Your task to perform on an android device: allow cookies in the chrome app Image 0: 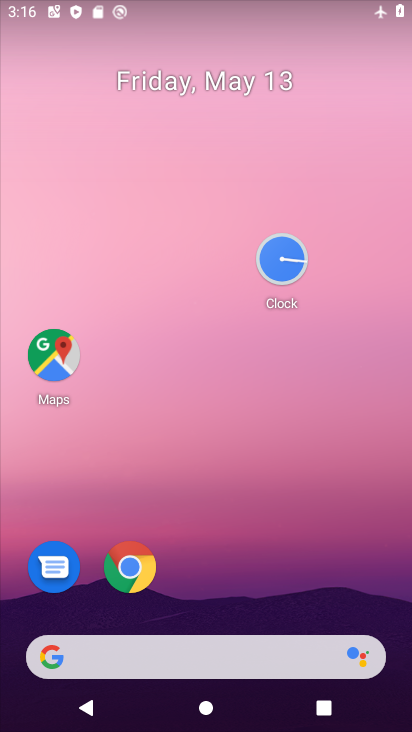
Step 0: click (147, 601)
Your task to perform on an android device: allow cookies in the chrome app Image 1: 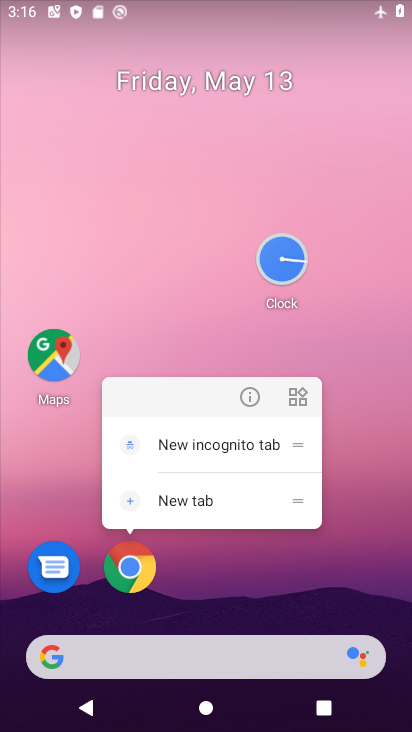
Step 1: click (147, 601)
Your task to perform on an android device: allow cookies in the chrome app Image 2: 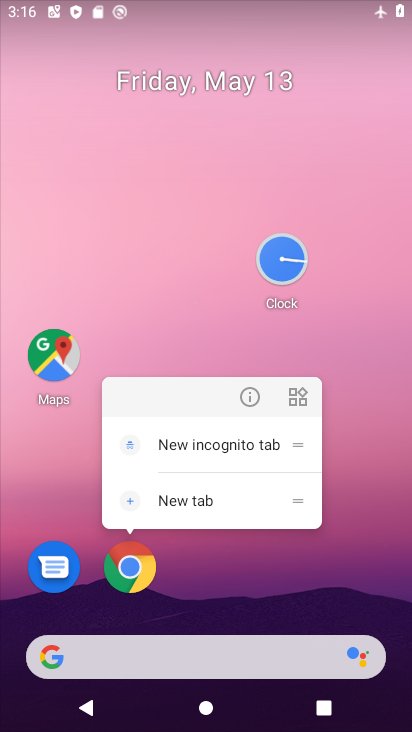
Step 2: click (147, 601)
Your task to perform on an android device: allow cookies in the chrome app Image 3: 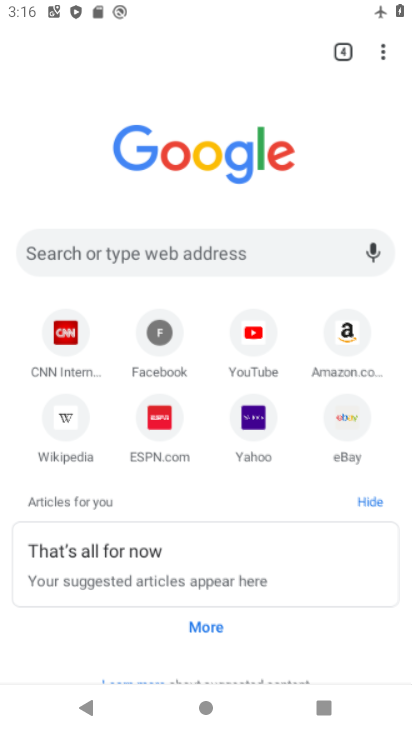
Step 3: click (385, 51)
Your task to perform on an android device: allow cookies in the chrome app Image 4: 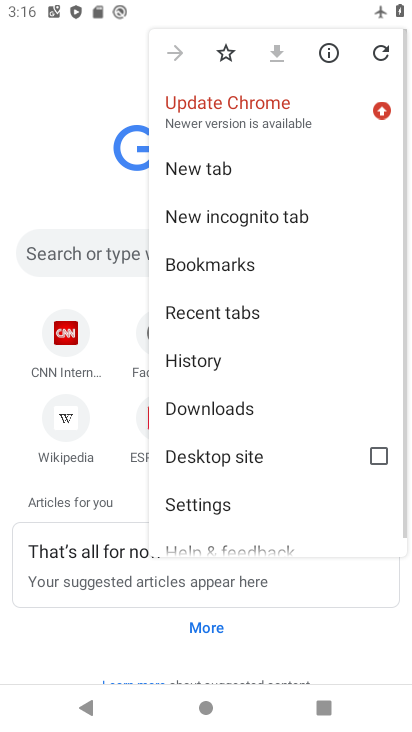
Step 4: click (242, 495)
Your task to perform on an android device: allow cookies in the chrome app Image 5: 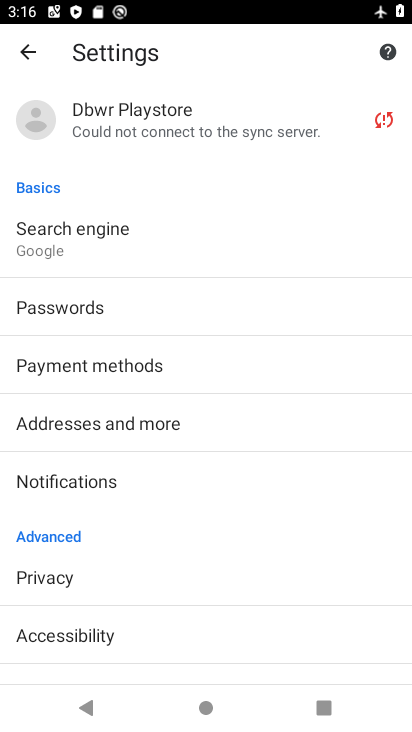
Step 5: drag from (270, 540) to (264, 408)
Your task to perform on an android device: allow cookies in the chrome app Image 6: 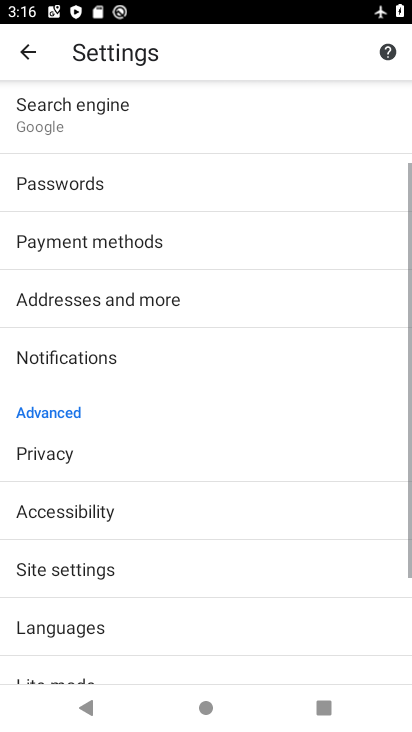
Step 6: click (264, 408)
Your task to perform on an android device: allow cookies in the chrome app Image 7: 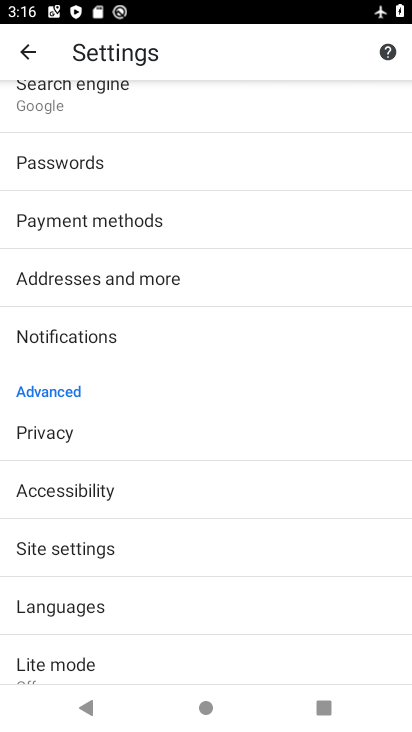
Step 7: drag from (214, 583) to (230, 374)
Your task to perform on an android device: allow cookies in the chrome app Image 8: 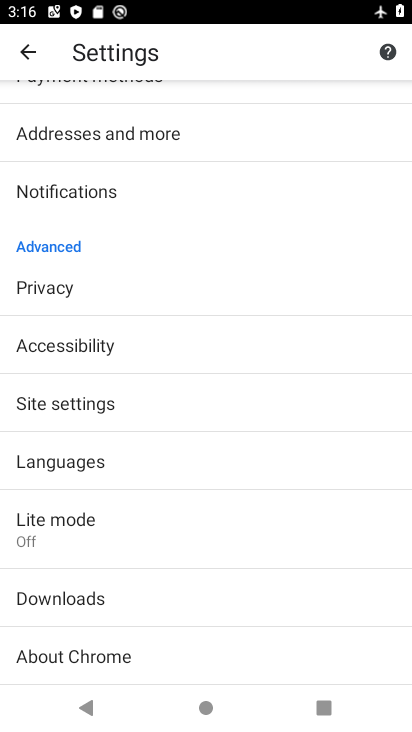
Step 8: click (195, 412)
Your task to perform on an android device: allow cookies in the chrome app Image 9: 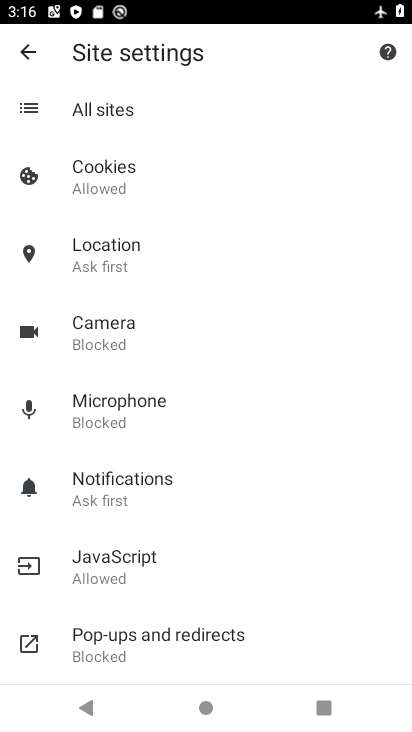
Step 9: task complete